Your task to perform on an android device: set an alarm Image 0: 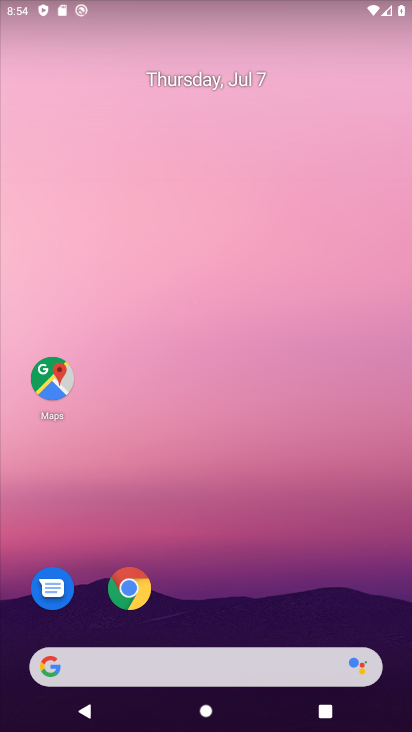
Step 0: drag from (215, 622) to (268, 6)
Your task to perform on an android device: set an alarm Image 1: 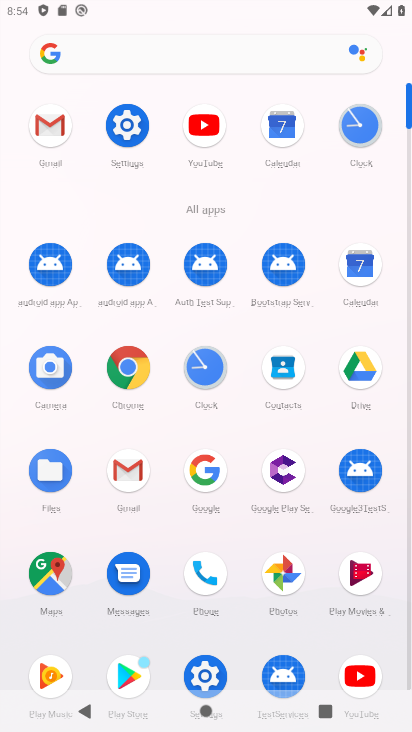
Step 1: click (201, 361)
Your task to perform on an android device: set an alarm Image 2: 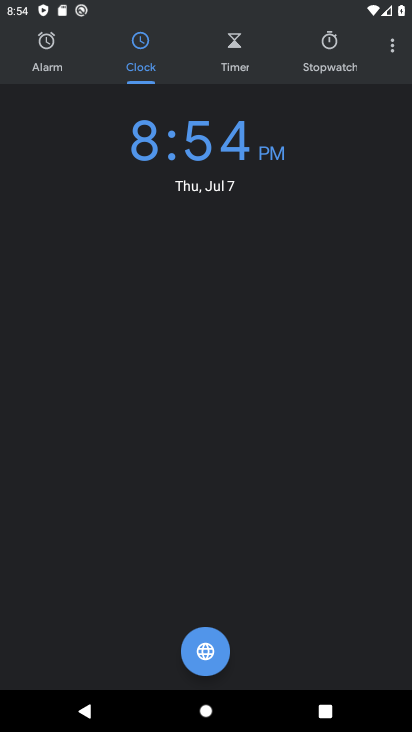
Step 2: click (42, 39)
Your task to perform on an android device: set an alarm Image 3: 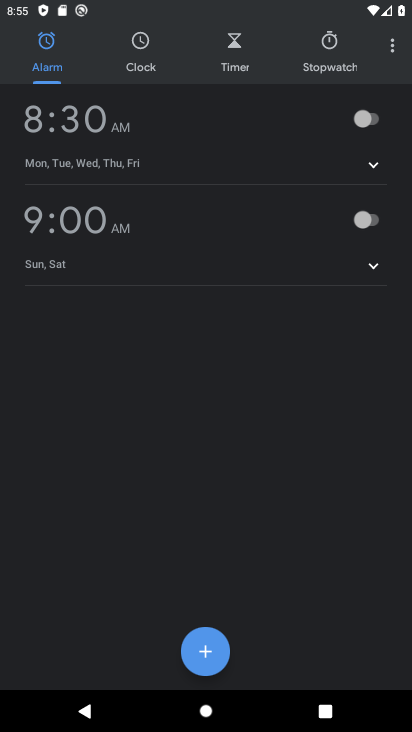
Step 3: click (367, 116)
Your task to perform on an android device: set an alarm Image 4: 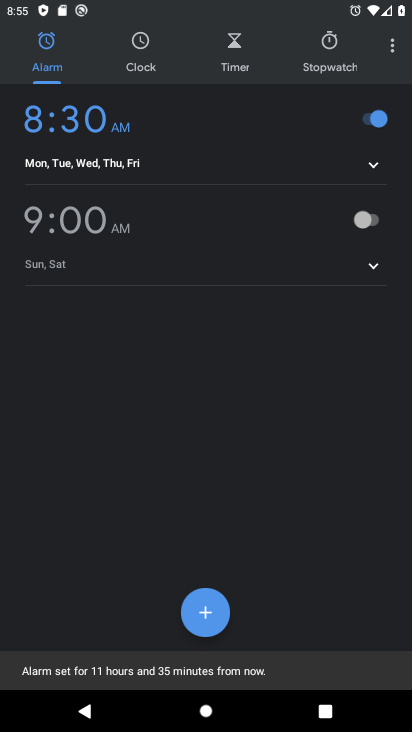
Step 4: click (373, 221)
Your task to perform on an android device: set an alarm Image 5: 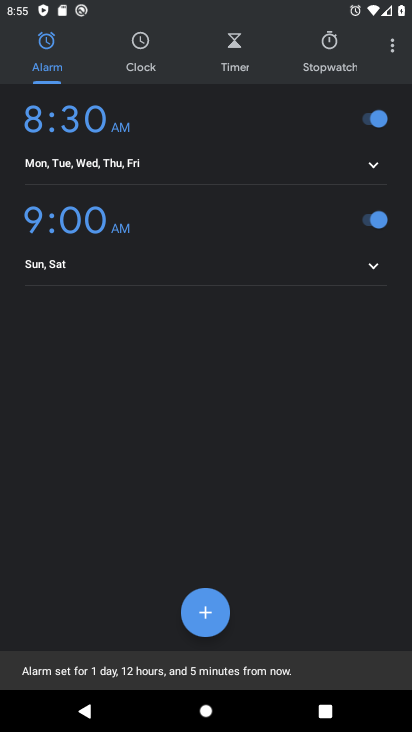
Step 5: task complete